Your task to perform on an android device: turn off location history Image 0: 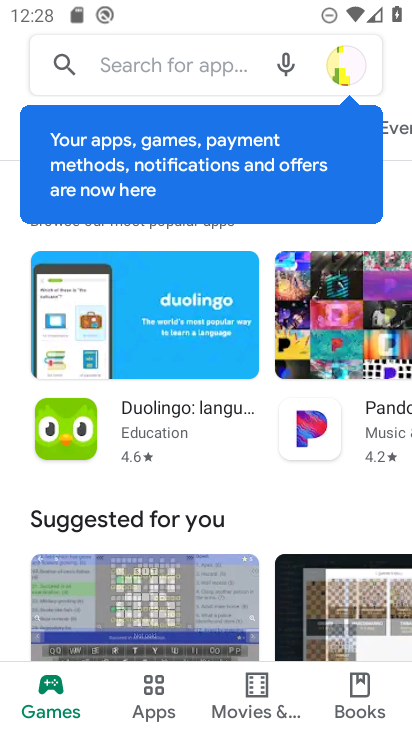
Step 0: press home button
Your task to perform on an android device: turn off location history Image 1: 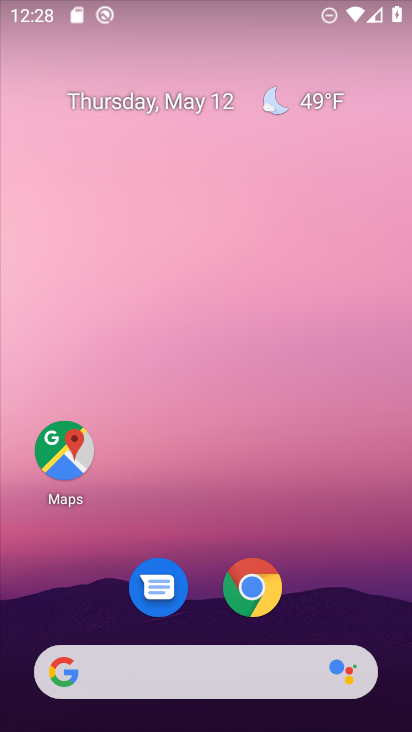
Step 1: drag from (282, 474) to (309, 316)
Your task to perform on an android device: turn off location history Image 2: 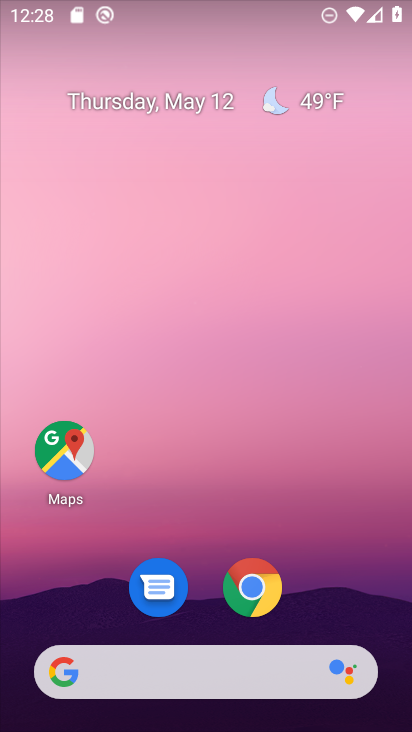
Step 2: drag from (265, 606) to (281, 325)
Your task to perform on an android device: turn off location history Image 3: 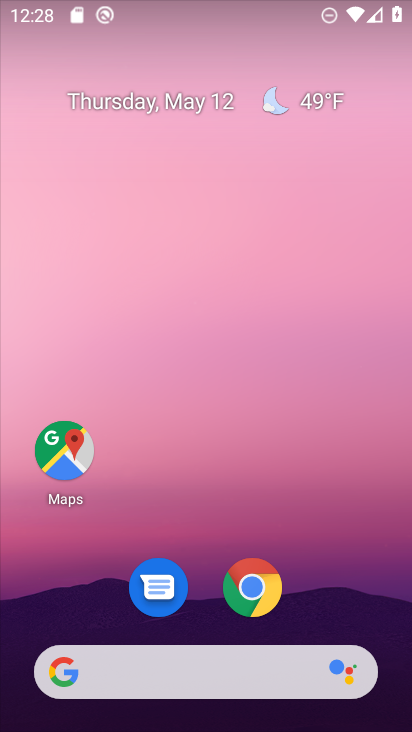
Step 3: drag from (259, 584) to (282, 365)
Your task to perform on an android device: turn off location history Image 4: 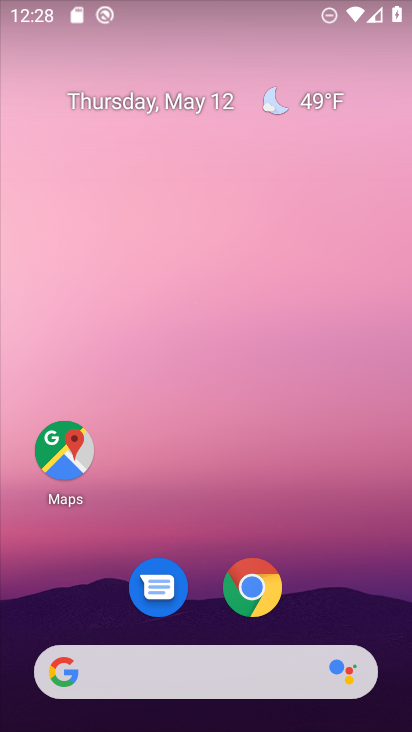
Step 4: drag from (224, 638) to (234, 90)
Your task to perform on an android device: turn off location history Image 5: 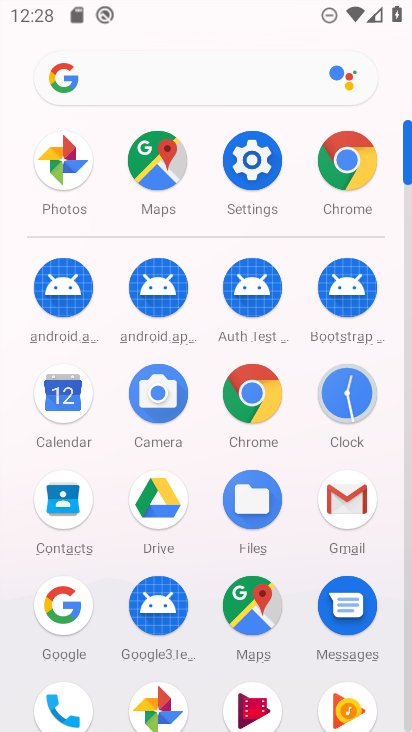
Step 5: click (241, 155)
Your task to perform on an android device: turn off location history Image 6: 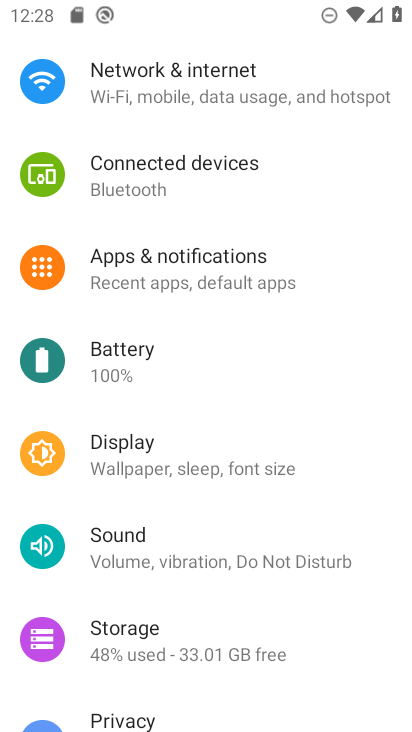
Step 6: drag from (190, 615) to (260, 161)
Your task to perform on an android device: turn off location history Image 7: 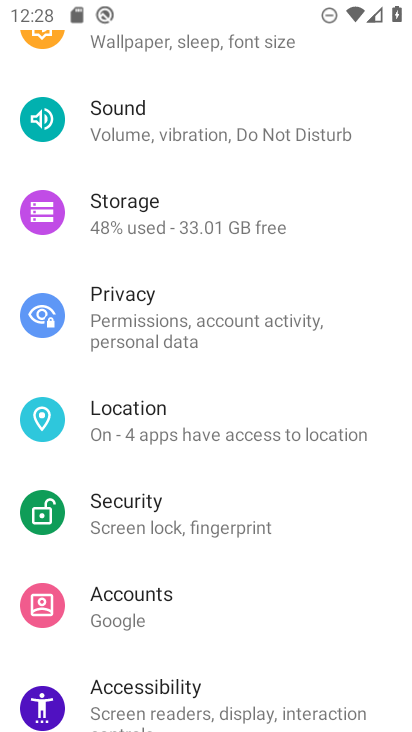
Step 7: click (150, 411)
Your task to perform on an android device: turn off location history Image 8: 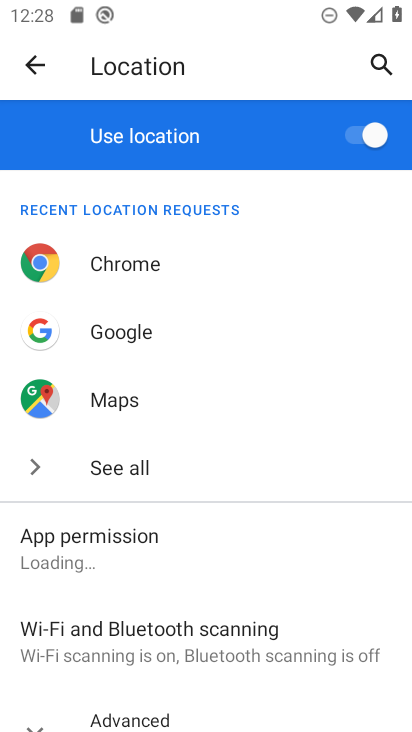
Step 8: drag from (202, 658) to (284, 280)
Your task to perform on an android device: turn off location history Image 9: 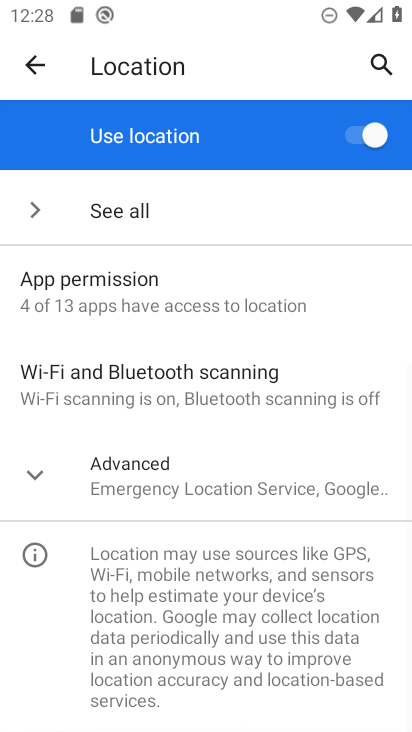
Step 9: click (179, 499)
Your task to perform on an android device: turn off location history Image 10: 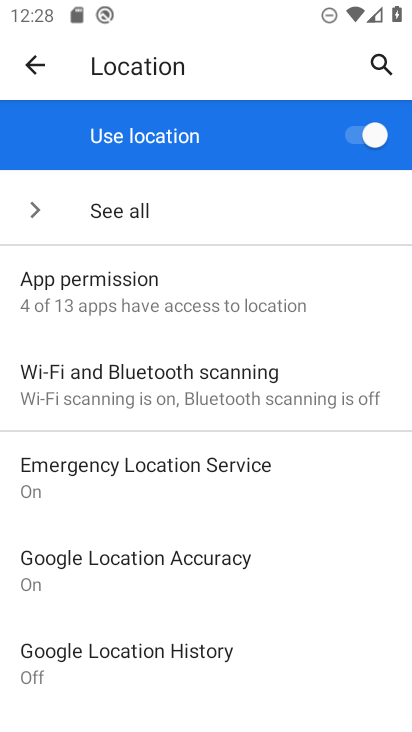
Step 10: click (177, 659)
Your task to perform on an android device: turn off location history Image 11: 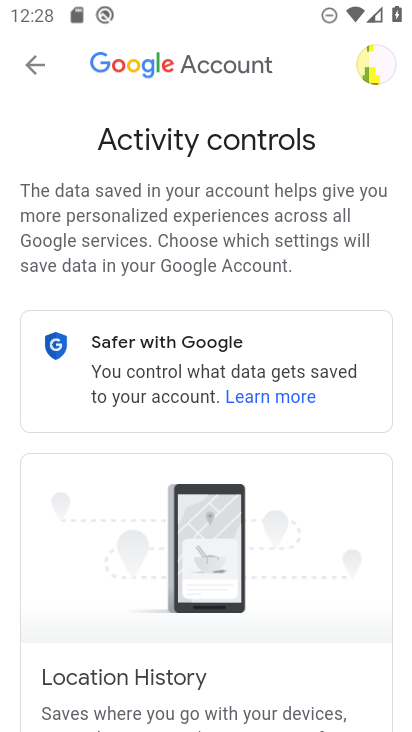
Step 11: task complete